Your task to perform on an android device: Open Reddit.com Image 0: 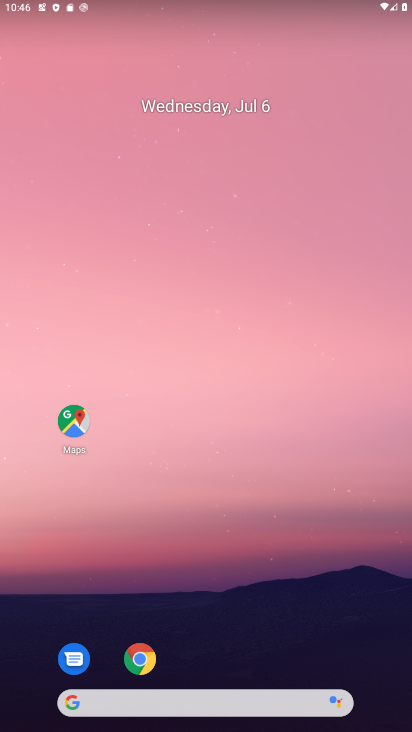
Step 0: click (140, 655)
Your task to perform on an android device: Open Reddit.com Image 1: 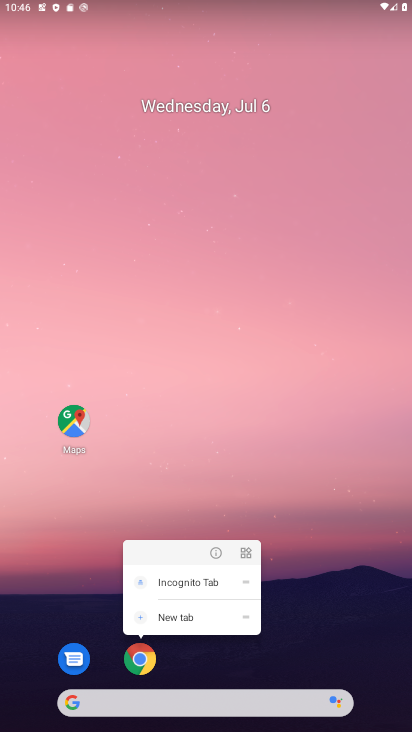
Step 1: click (143, 655)
Your task to perform on an android device: Open Reddit.com Image 2: 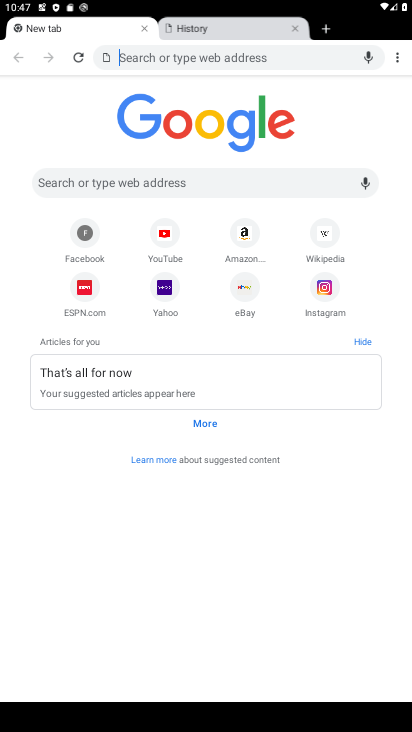
Step 2: click (99, 195)
Your task to perform on an android device: Open Reddit.com Image 3: 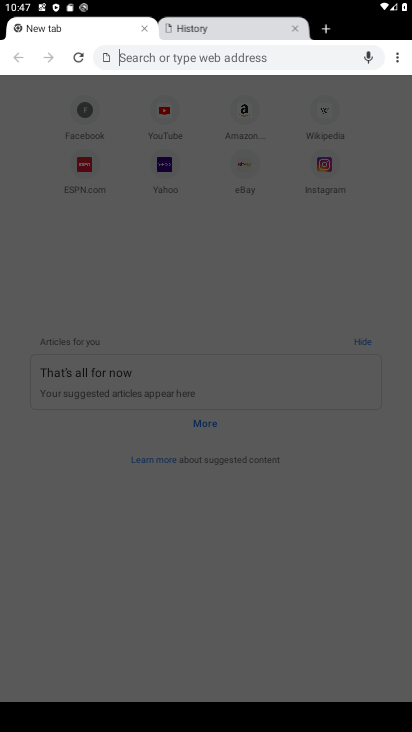
Step 3: type "reddit.com"
Your task to perform on an android device: Open Reddit.com Image 4: 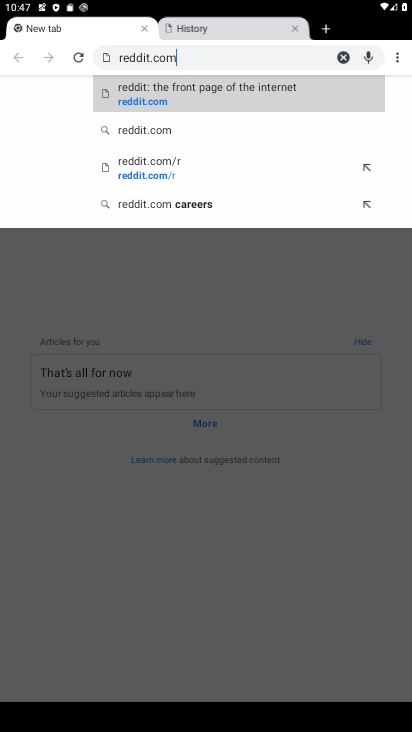
Step 4: click (203, 94)
Your task to perform on an android device: Open Reddit.com Image 5: 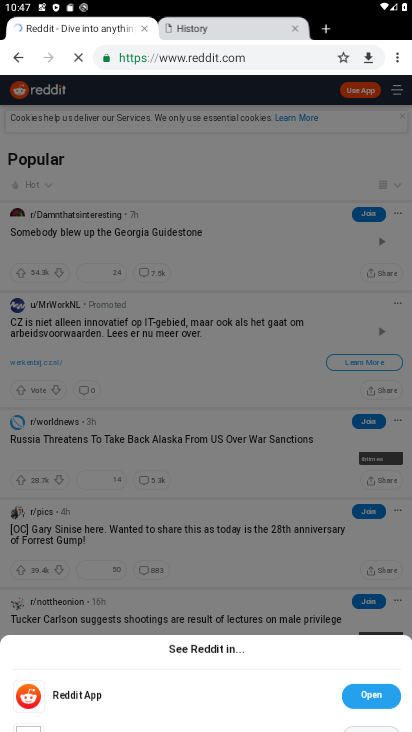
Step 5: task complete